Your task to perform on an android device: What's the weather today? Image 0: 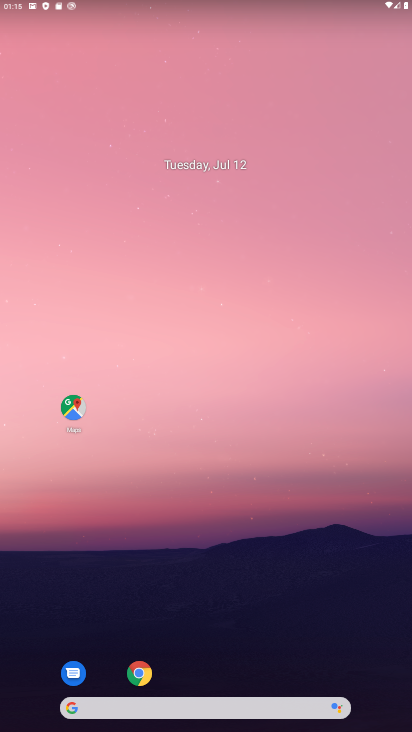
Step 0: press home button
Your task to perform on an android device: What's the weather today? Image 1: 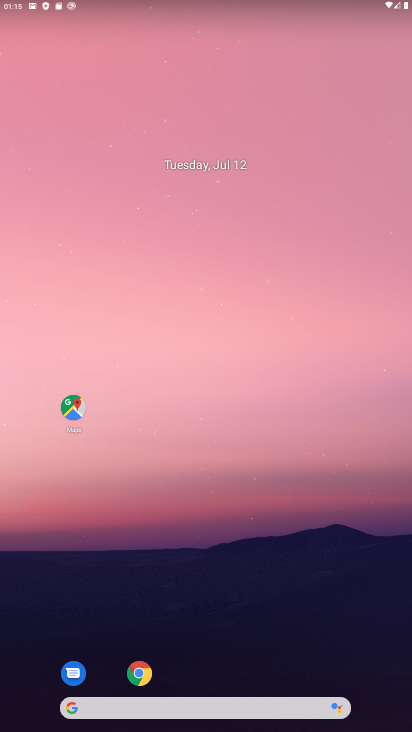
Step 1: drag from (244, 640) to (264, 124)
Your task to perform on an android device: What's the weather today? Image 2: 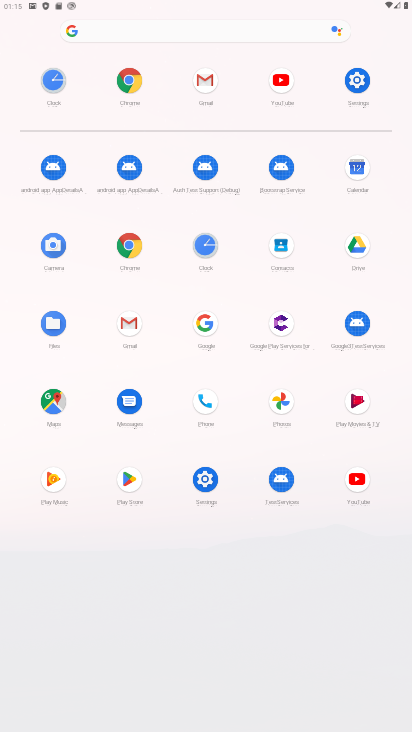
Step 2: click (143, 30)
Your task to perform on an android device: What's the weather today? Image 3: 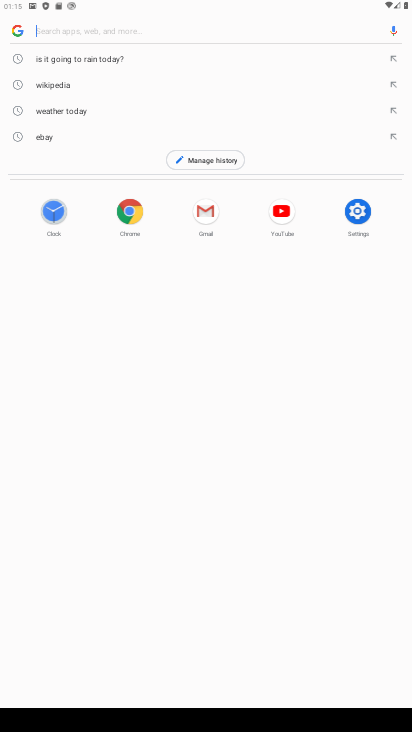
Step 3: type "What's the weather today?"
Your task to perform on an android device: What's the weather today? Image 4: 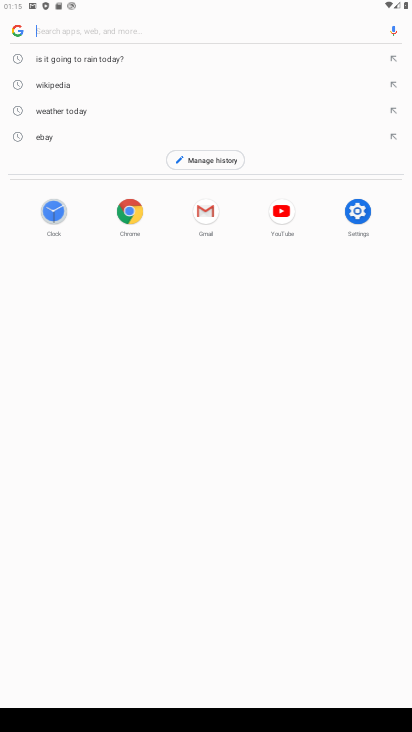
Step 4: click (83, 28)
Your task to perform on an android device: What's the weather today? Image 5: 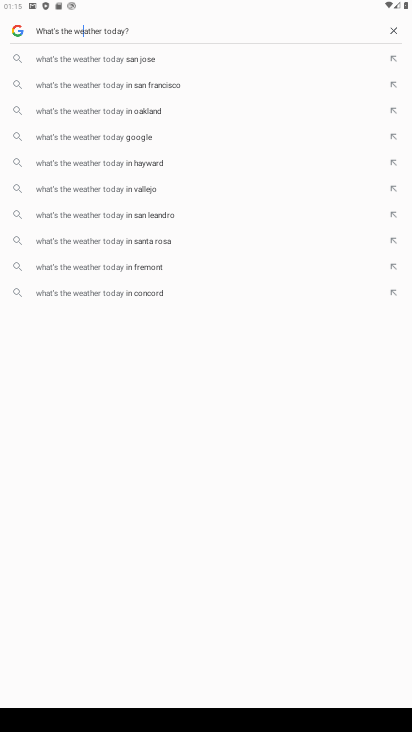
Step 5: press enter
Your task to perform on an android device: What's the weather today? Image 6: 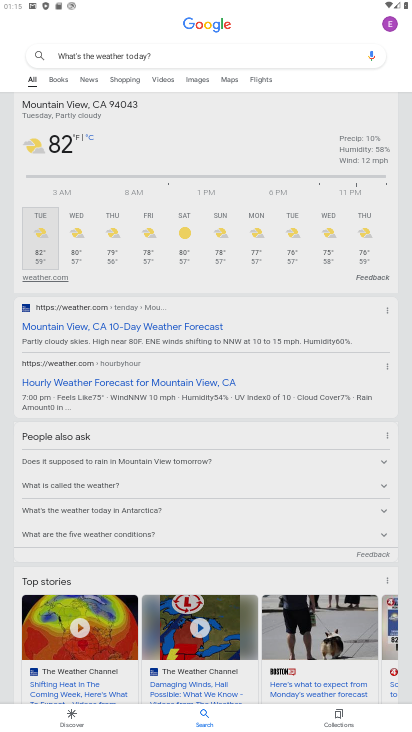
Step 6: task complete